Your task to perform on an android device: What's on my calendar tomorrow? Image 0: 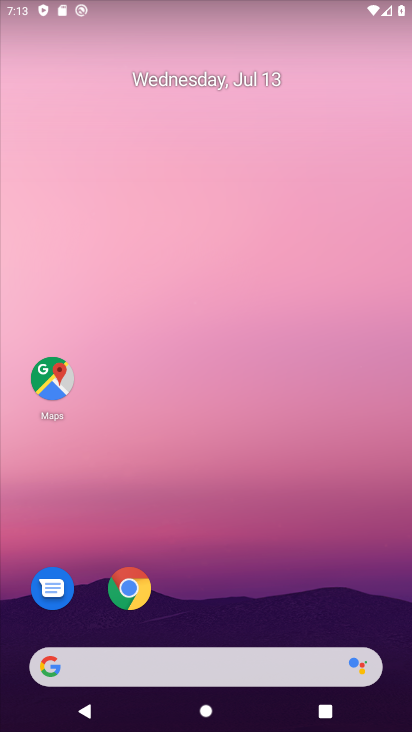
Step 0: drag from (224, 599) to (166, 109)
Your task to perform on an android device: What's on my calendar tomorrow? Image 1: 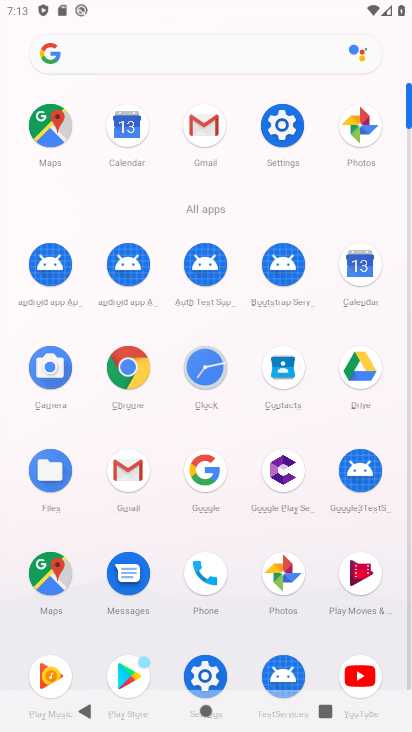
Step 1: click (363, 271)
Your task to perform on an android device: What's on my calendar tomorrow? Image 2: 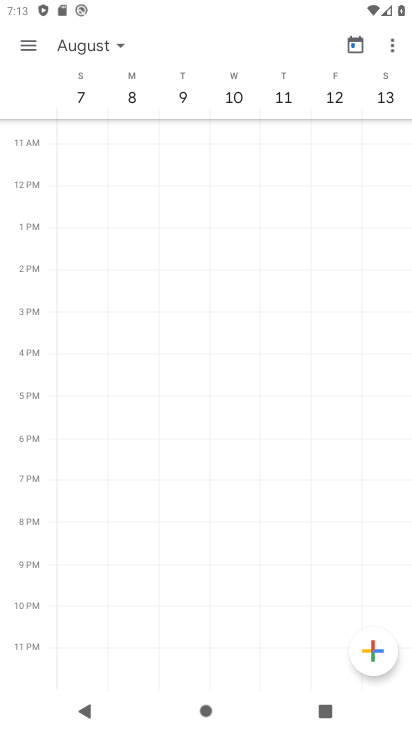
Step 2: click (24, 44)
Your task to perform on an android device: What's on my calendar tomorrow? Image 3: 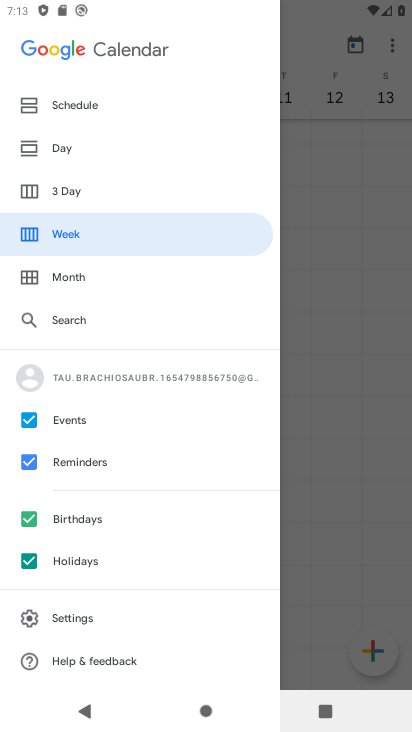
Step 3: click (63, 149)
Your task to perform on an android device: What's on my calendar tomorrow? Image 4: 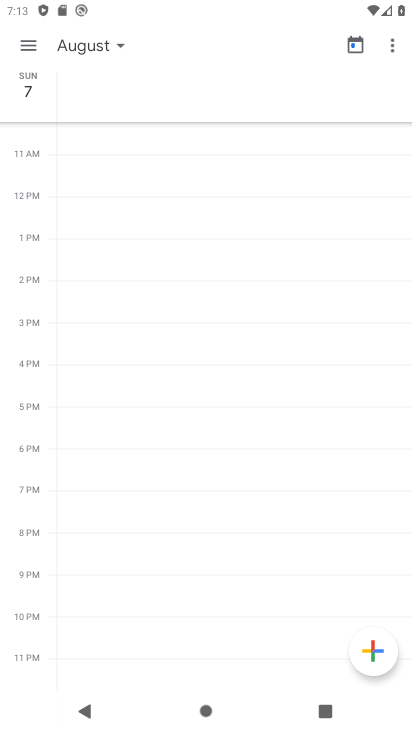
Step 4: click (114, 42)
Your task to perform on an android device: What's on my calendar tomorrow? Image 5: 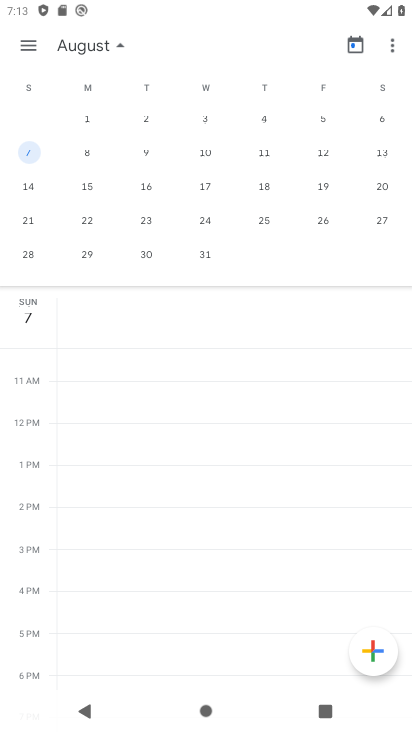
Step 5: drag from (65, 115) to (365, 292)
Your task to perform on an android device: What's on my calendar tomorrow? Image 6: 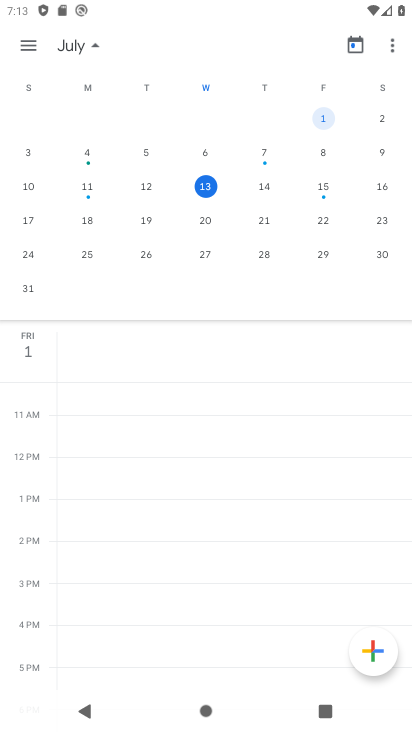
Step 6: click (263, 182)
Your task to perform on an android device: What's on my calendar tomorrow? Image 7: 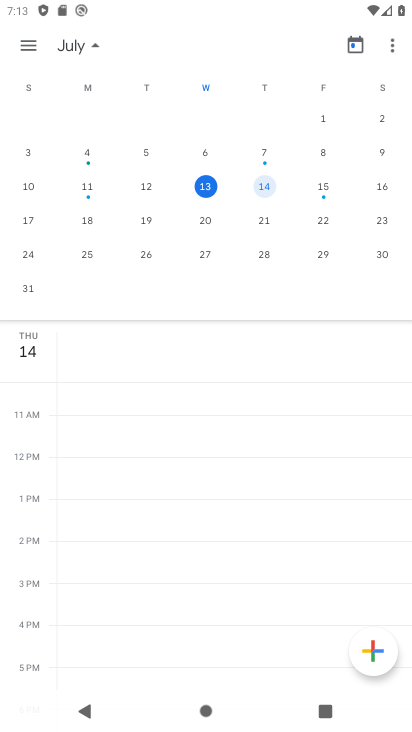
Step 7: task complete